Your task to perform on an android device: move an email to a new category in the gmail app Image 0: 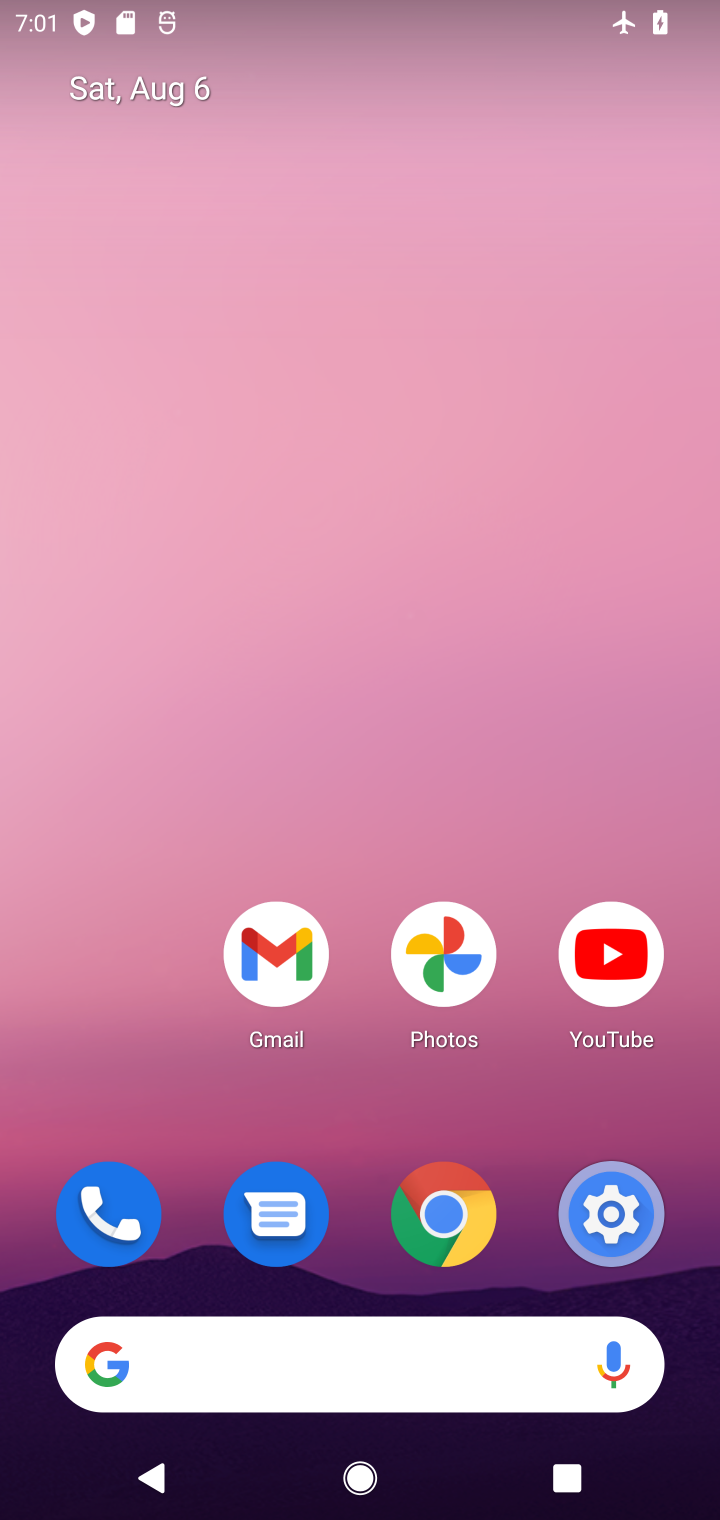
Step 0: click (287, 985)
Your task to perform on an android device: move an email to a new category in the gmail app Image 1: 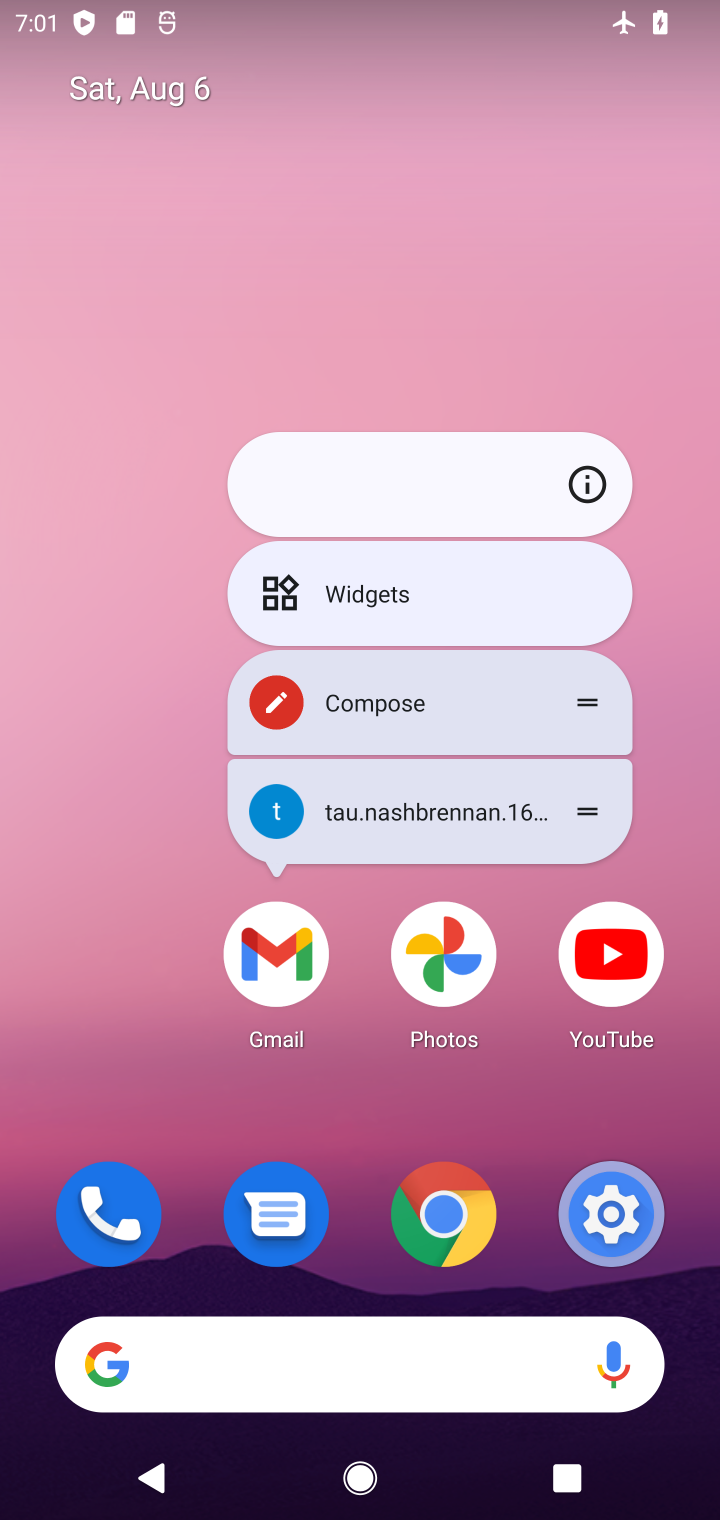
Step 1: click (288, 989)
Your task to perform on an android device: move an email to a new category in the gmail app Image 2: 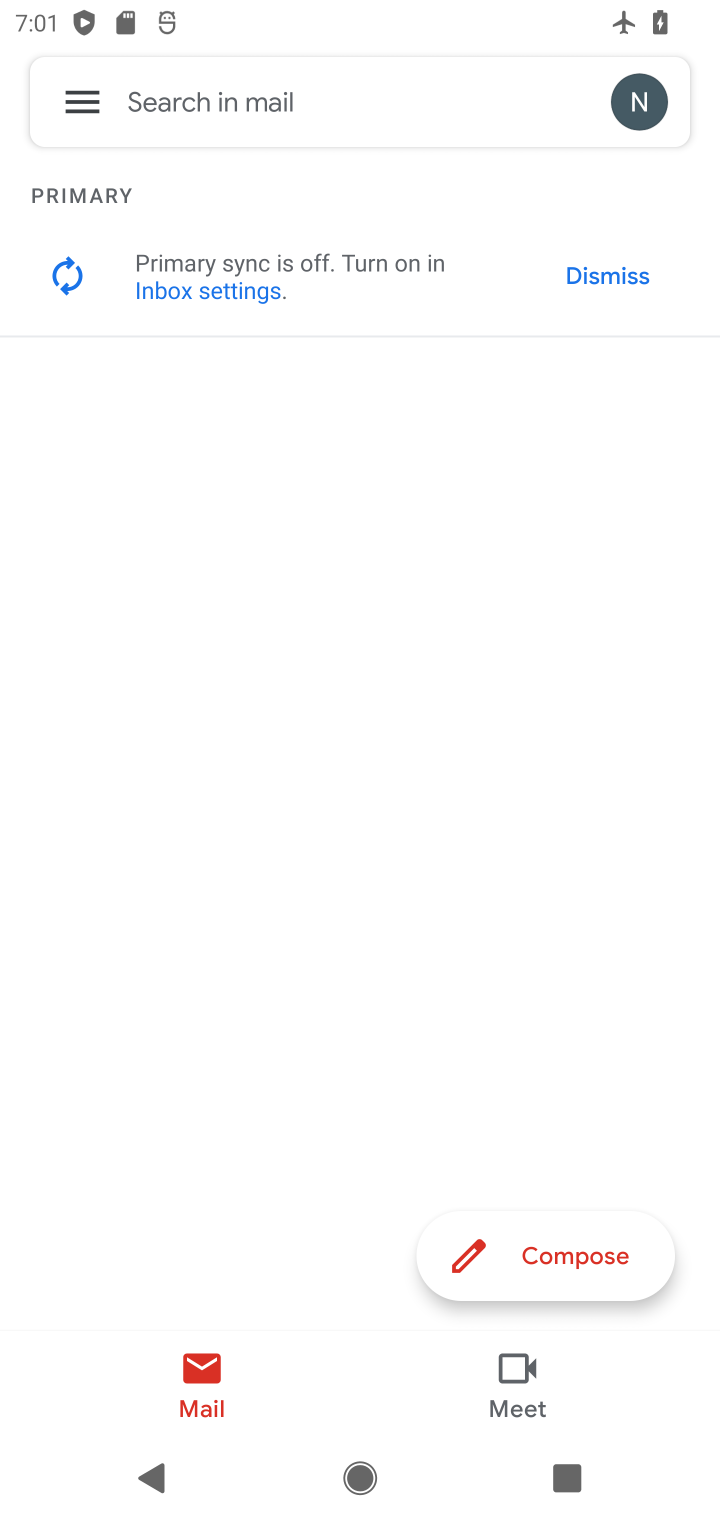
Step 2: click (53, 253)
Your task to perform on an android device: move an email to a new category in the gmail app Image 3: 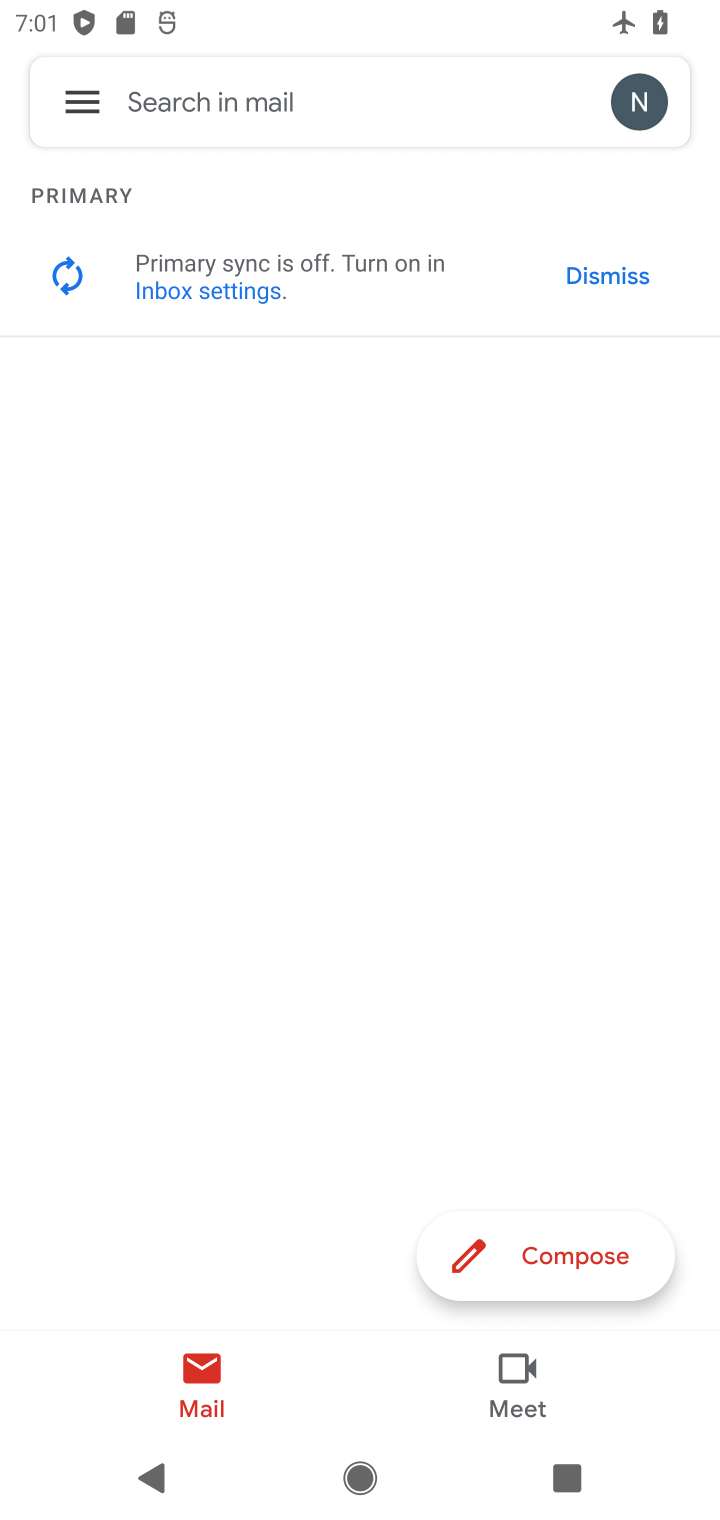
Step 3: task complete